Your task to perform on an android device: Open the Play Movies app and select the watchlist tab. Image 0: 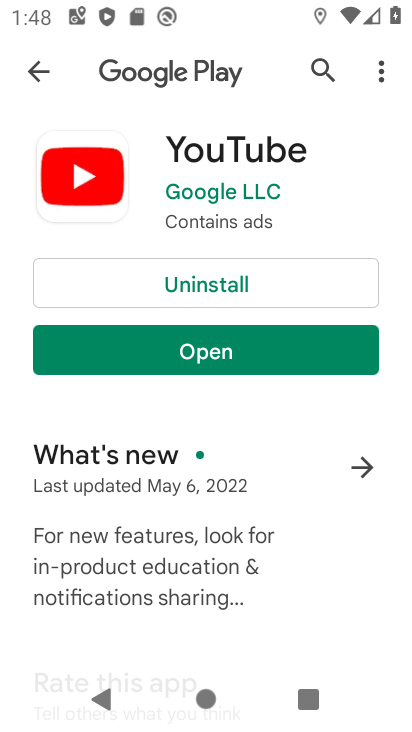
Step 0: press home button
Your task to perform on an android device: Open the Play Movies app and select the watchlist tab. Image 1: 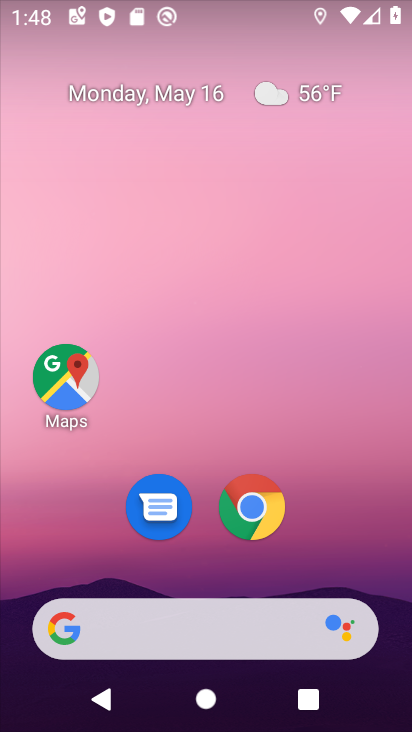
Step 1: drag from (196, 554) to (220, 127)
Your task to perform on an android device: Open the Play Movies app and select the watchlist tab. Image 2: 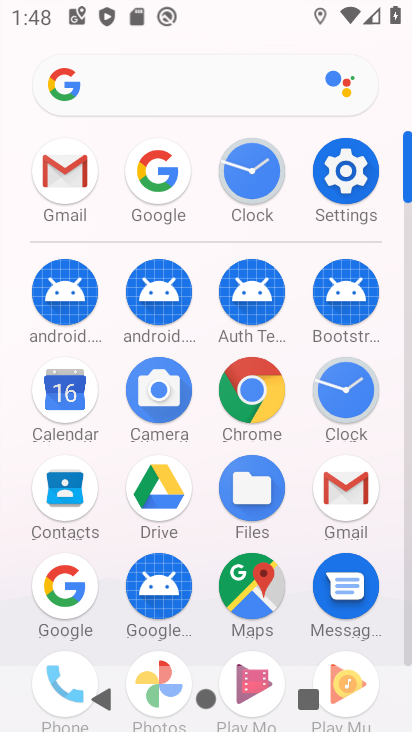
Step 2: drag from (285, 567) to (307, 163)
Your task to perform on an android device: Open the Play Movies app and select the watchlist tab. Image 3: 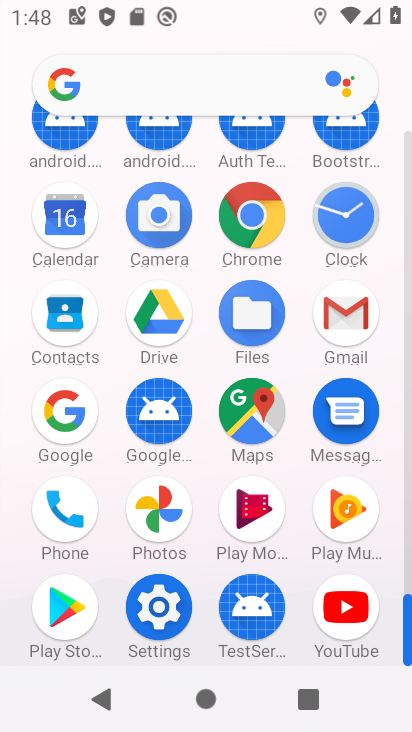
Step 3: click (240, 479)
Your task to perform on an android device: Open the Play Movies app and select the watchlist tab. Image 4: 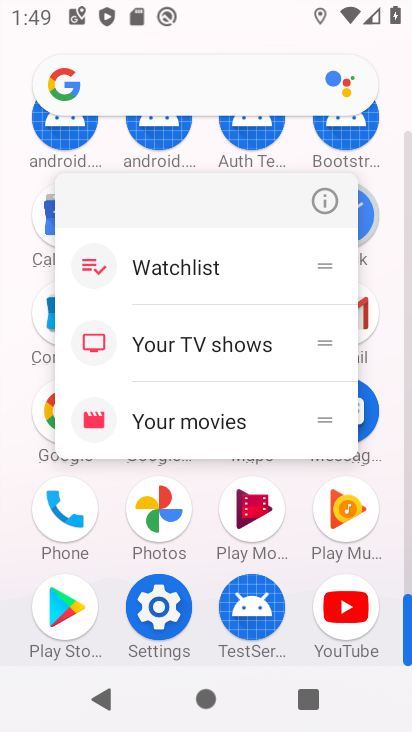
Step 4: click (253, 504)
Your task to perform on an android device: Open the Play Movies app and select the watchlist tab. Image 5: 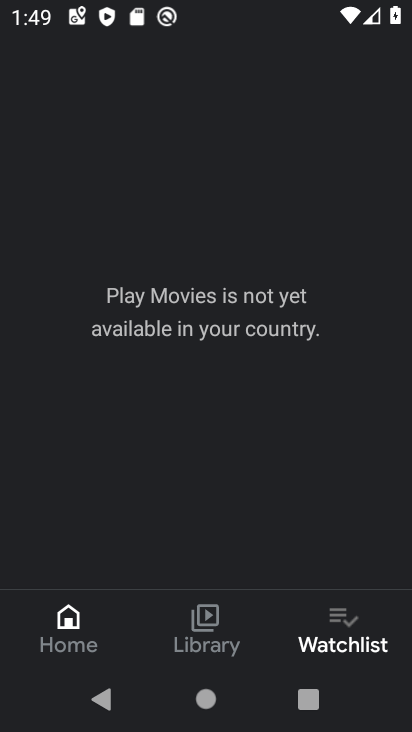
Step 5: task complete